Your task to perform on an android device: Is it going to rain this weekend? Image 0: 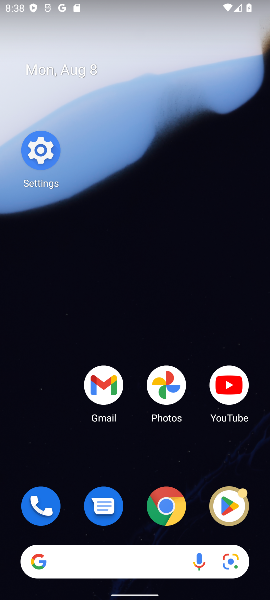
Step 0: drag from (131, 459) to (146, 123)
Your task to perform on an android device: Is it going to rain this weekend? Image 1: 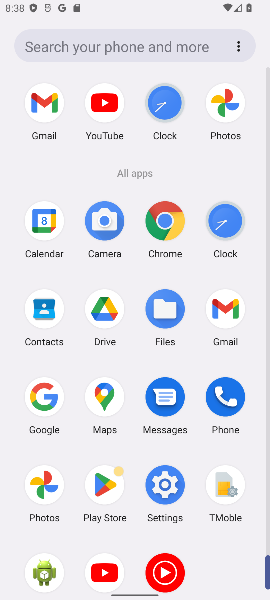
Step 1: drag from (42, 395) to (114, 163)
Your task to perform on an android device: Is it going to rain this weekend? Image 2: 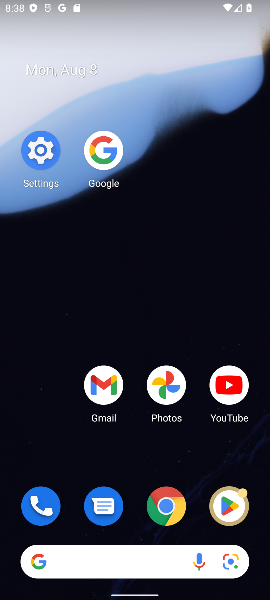
Step 2: click (110, 154)
Your task to perform on an android device: Is it going to rain this weekend? Image 3: 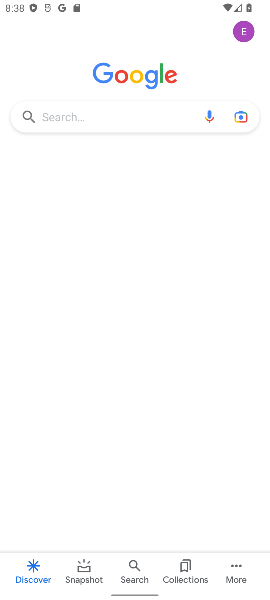
Step 3: click (124, 124)
Your task to perform on an android device: Is it going to rain this weekend? Image 4: 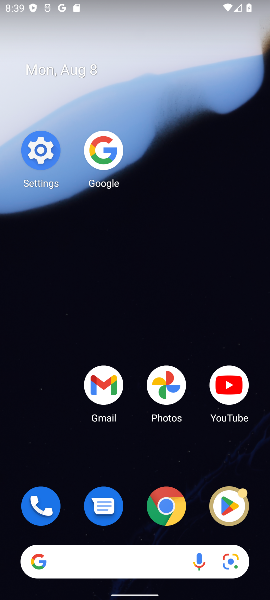
Step 4: click (106, 138)
Your task to perform on an android device: Is it going to rain this weekend? Image 5: 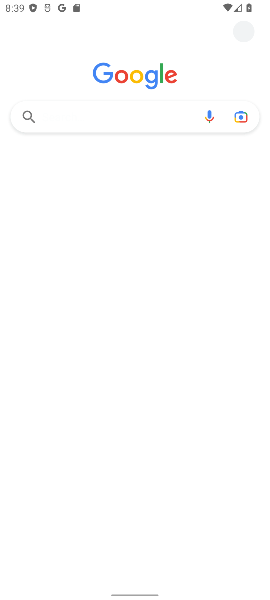
Step 5: click (97, 104)
Your task to perform on an android device: Is it going to rain this weekend? Image 6: 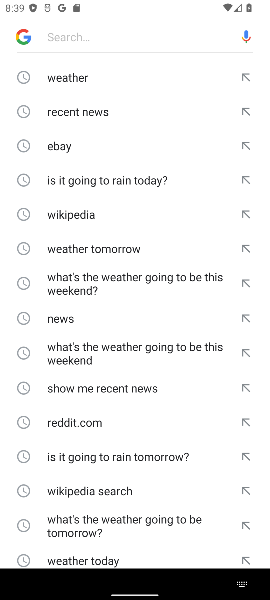
Step 6: click (121, 79)
Your task to perform on an android device: Is it going to rain this weekend? Image 7: 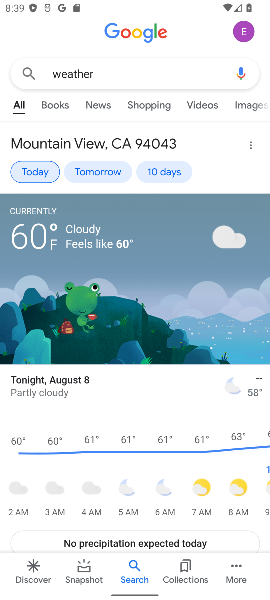
Step 7: click (161, 171)
Your task to perform on an android device: Is it going to rain this weekend? Image 8: 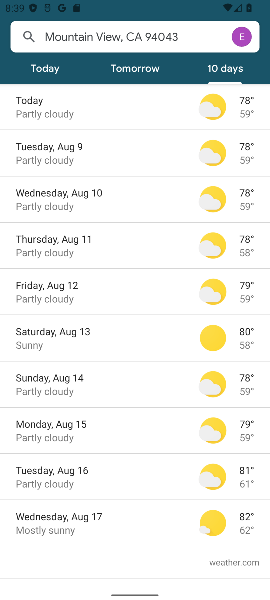
Step 8: click (61, 331)
Your task to perform on an android device: Is it going to rain this weekend? Image 9: 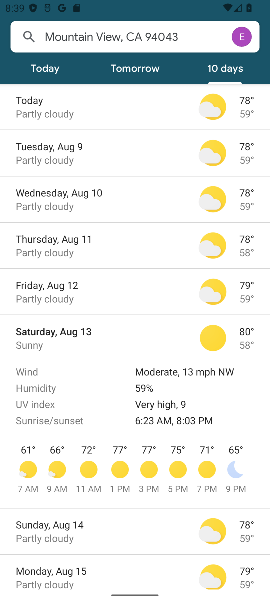
Step 9: task complete